Your task to perform on an android device: Open sound settings Image 0: 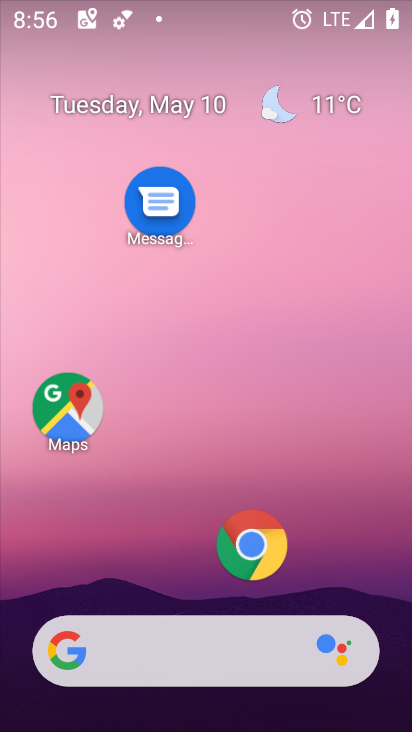
Step 0: press home button
Your task to perform on an android device: Open sound settings Image 1: 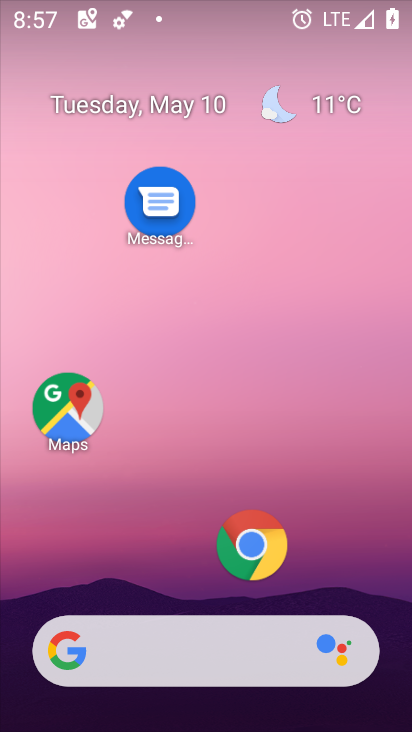
Step 1: drag from (198, 584) to (220, 172)
Your task to perform on an android device: Open sound settings Image 2: 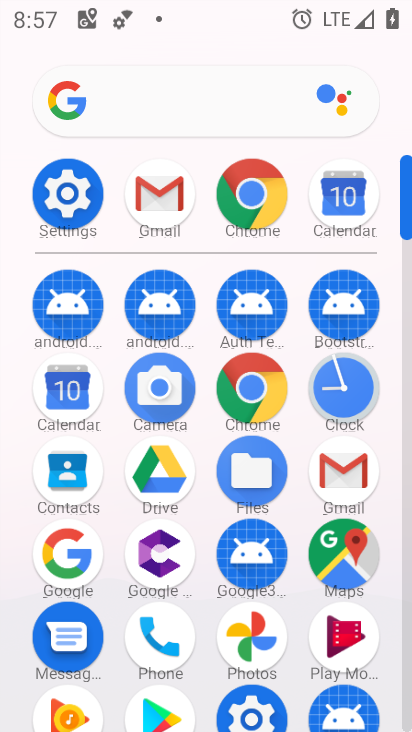
Step 2: click (68, 190)
Your task to perform on an android device: Open sound settings Image 3: 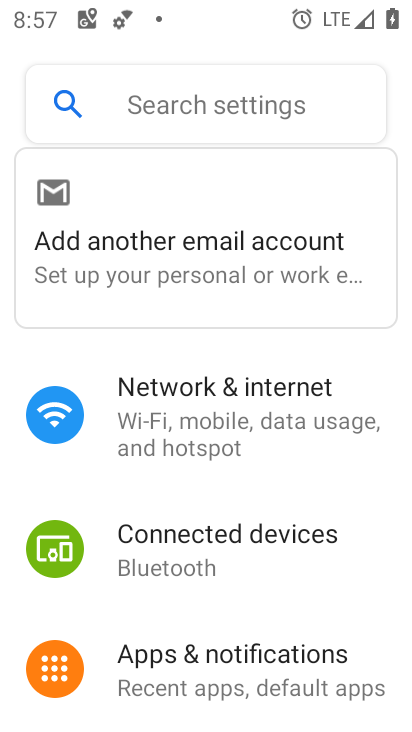
Step 3: drag from (237, 677) to (250, 145)
Your task to perform on an android device: Open sound settings Image 4: 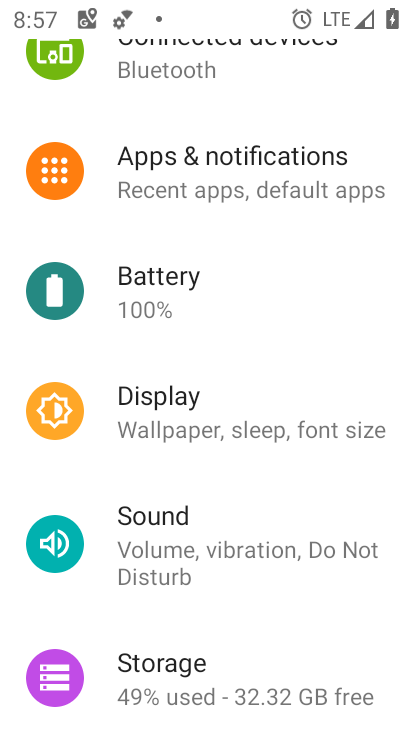
Step 4: click (201, 533)
Your task to perform on an android device: Open sound settings Image 5: 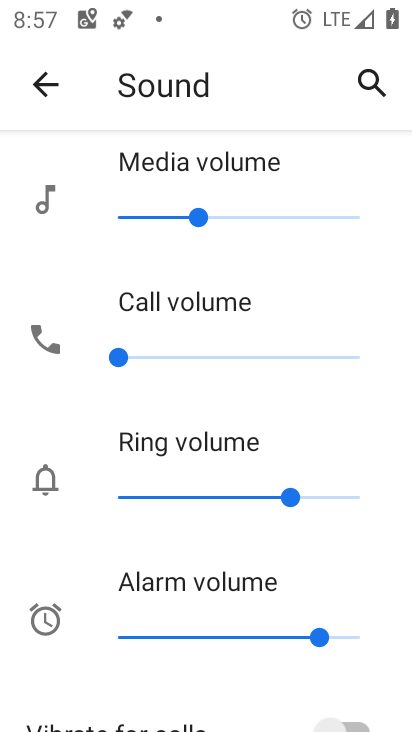
Step 5: click (203, 453)
Your task to perform on an android device: Open sound settings Image 6: 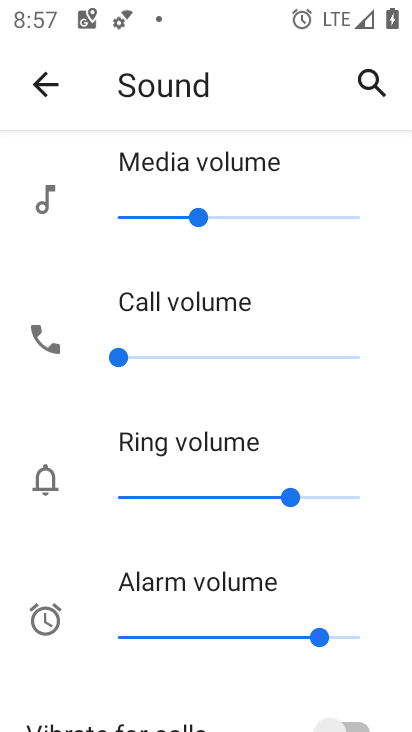
Step 6: click (203, 223)
Your task to perform on an android device: Open sound settings Image 7: 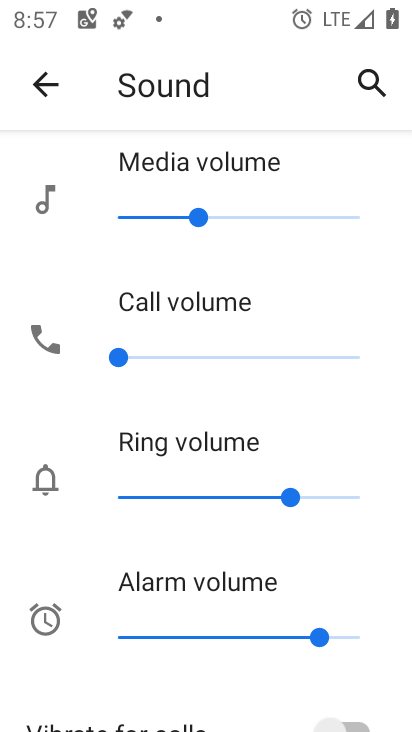
Step 7: drag from (209, 684) to (208, 194)
Your task to perform on an android device: Open sound settings Image 8: 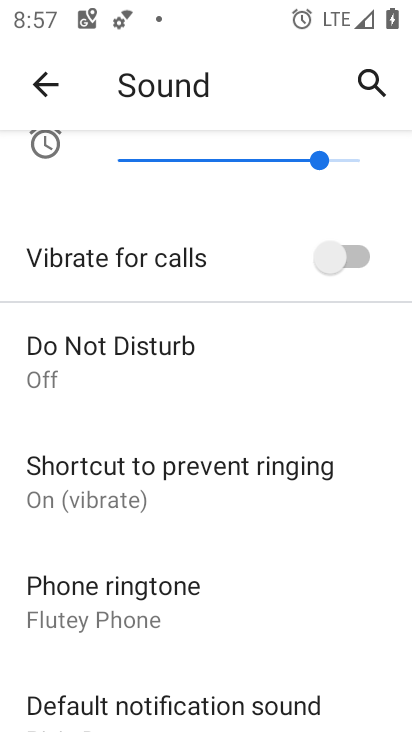
Step 8: drag from (201, 659) to (212, 163)
Your task to perform on an android device: Open sound settings Image 9: 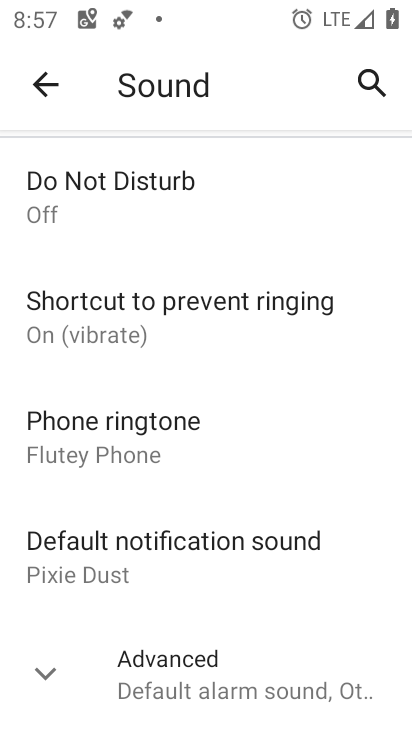
Step 9: click (49, 665)
Your task to perform on an android device: Open sound settings Image 10: 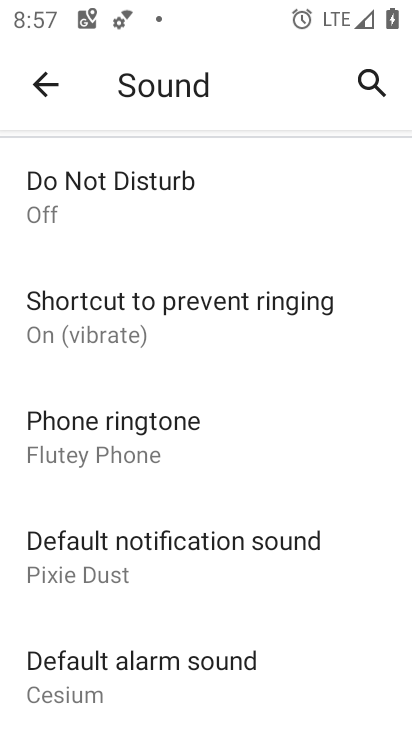
Step 10: task complete